Your task to perform on an android device: Go to CNN.com Image 0: 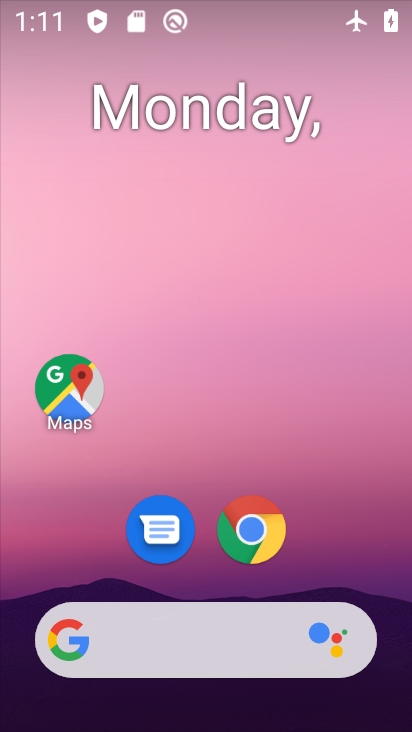
Step 0: drag from (354, 543) to (314, 131)
Your task to perform on an android device: Go to CNN.com Image 1: 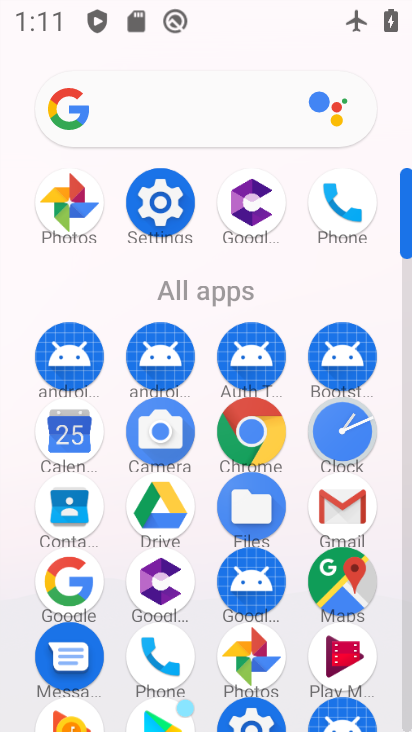
Step 1: click (260, 410)
Your task to perform on an android device: Go to CNN.com Image 2: 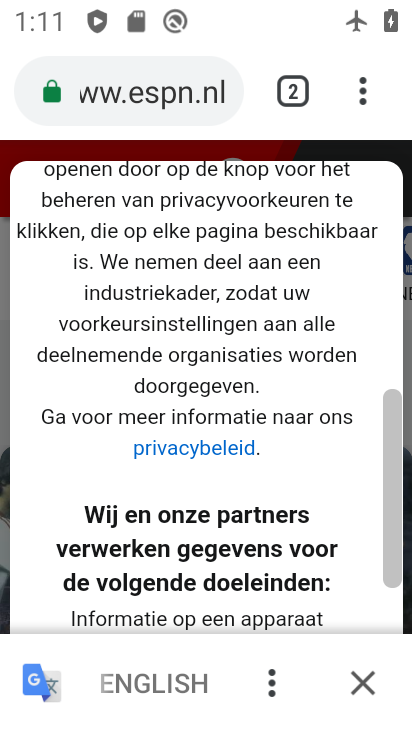
Step 2: click (201, 87)
Your task to perform on an android device: Go to CNN.com Image 3: 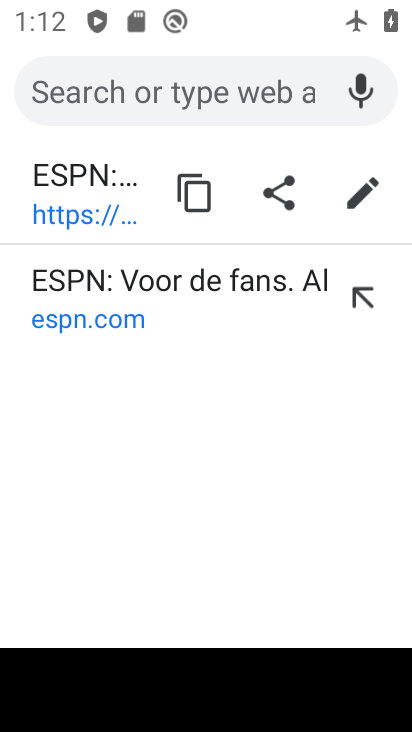
Step 3: type "cnn.com"
Your task to perform on an android device: Go to CNN.com Image 4: 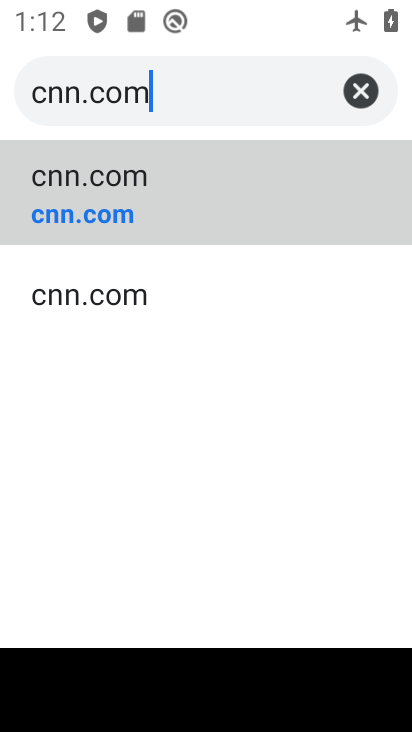
Step 4: click (38, 163)
Your task to perform on an android device: Go to CNN.com Image 5: 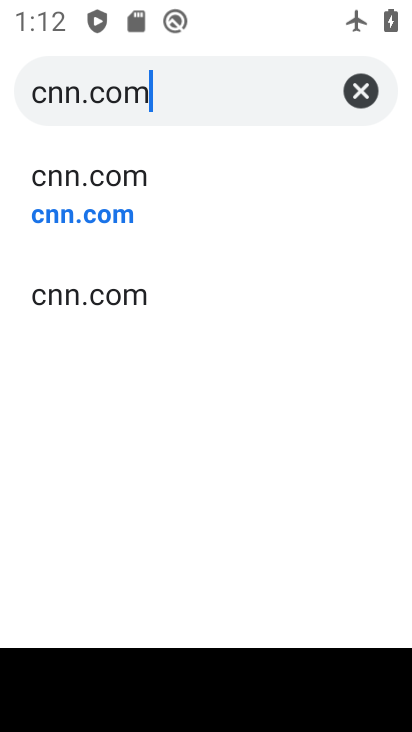
Step 5: click (88, 207)
Your task to perform on an android device: Go to CNN.com Image 6: 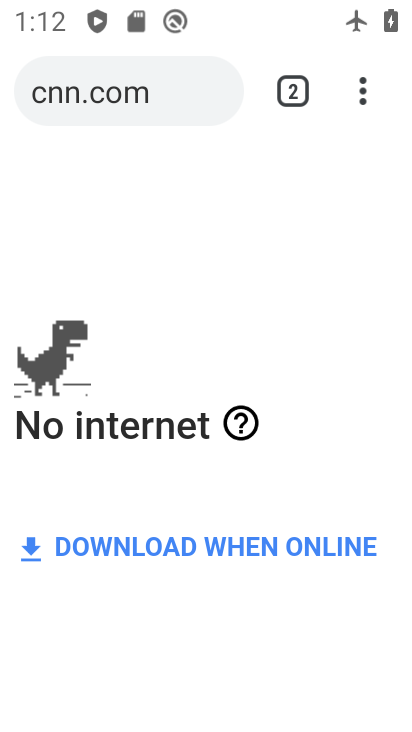
Step 6: task complete